Your task to perform on an android device: change the clock display to analog Image 0: 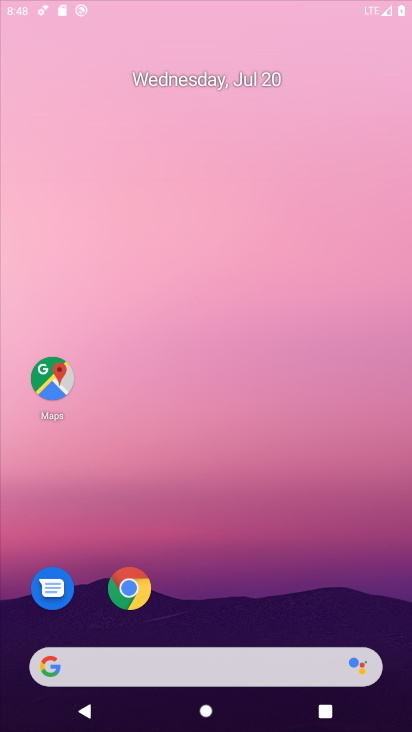
Step 0: press home button
Your task to perform on an android device: change the clock display to analog Image 1: 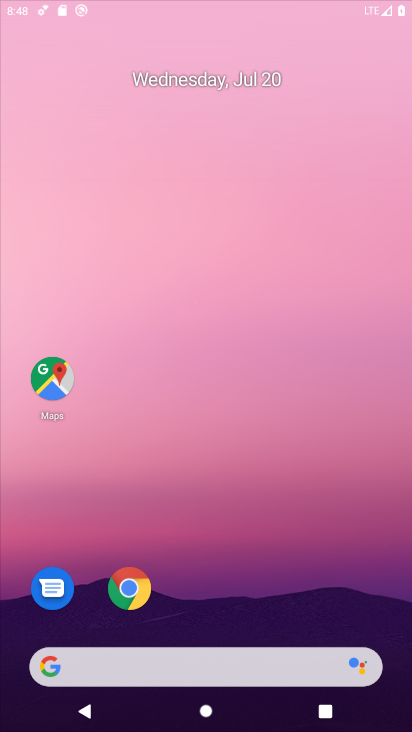
Step 1: click (242, 40)
Your task to perform on an android device: change the clock display to analog Image 2: 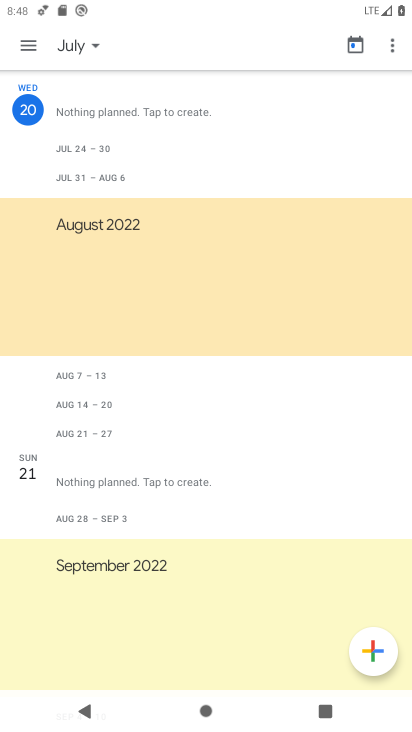
Step 2: press home button
Your task to perform on an android device: change the clock display to analog Image 3: 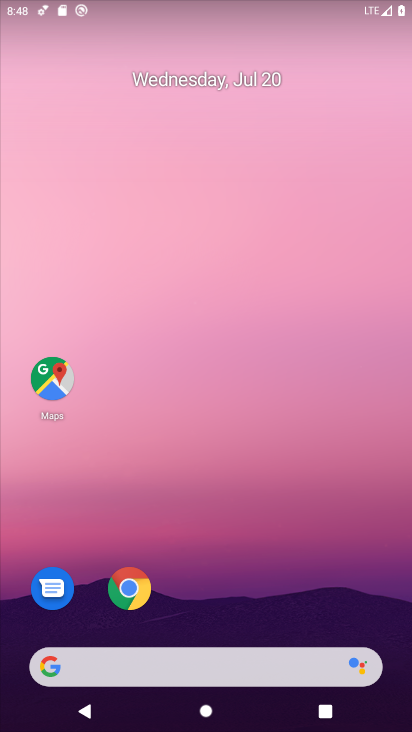
Step 3: drag from (219, 618) to (279, 32)
Your task to perform on an android device: change the clock display to analog Image 4: 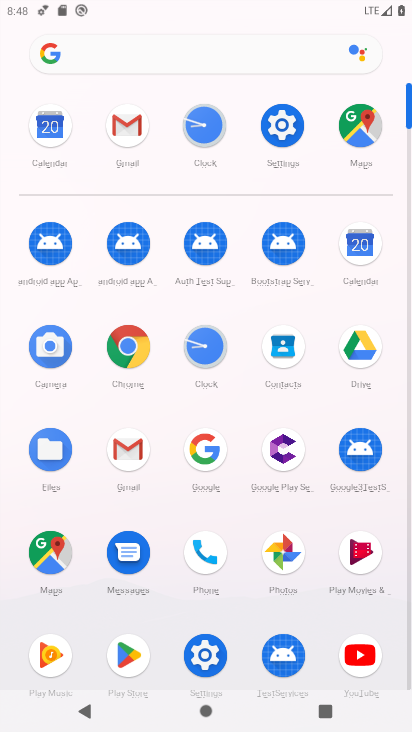
Step 4: click (201, 343)
Your task to perform on an android device: change the clock display to analog Image 5: 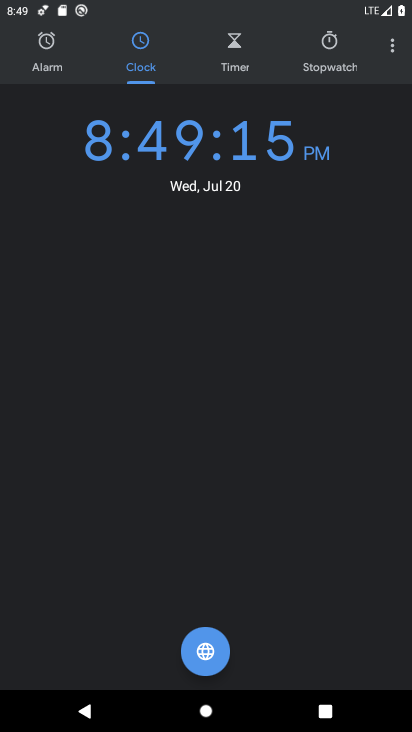
Step 5: click (390, 44)
Your task to perform on an android device: change the clock display to analog Image 6: 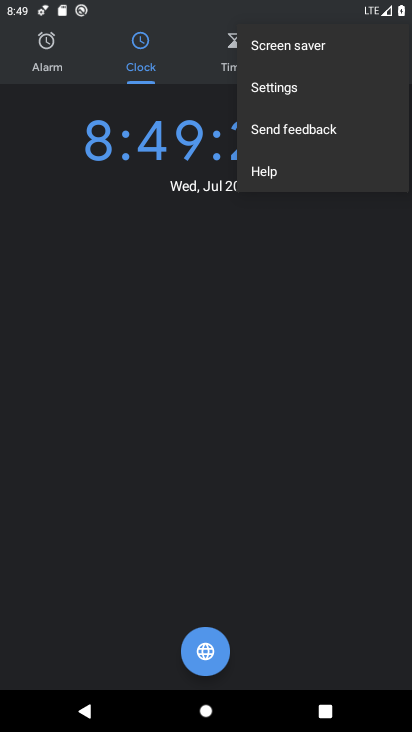
Step 6: click (300, 89)
Your task to perform on an android device: change the clock display to analog Image 7: 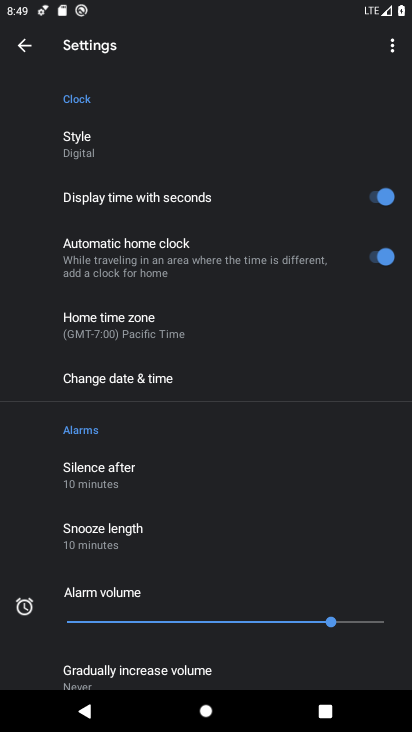
Step 7: click (120, 153)
Your task to perform on an android device: change the clock display to analog Image 8: 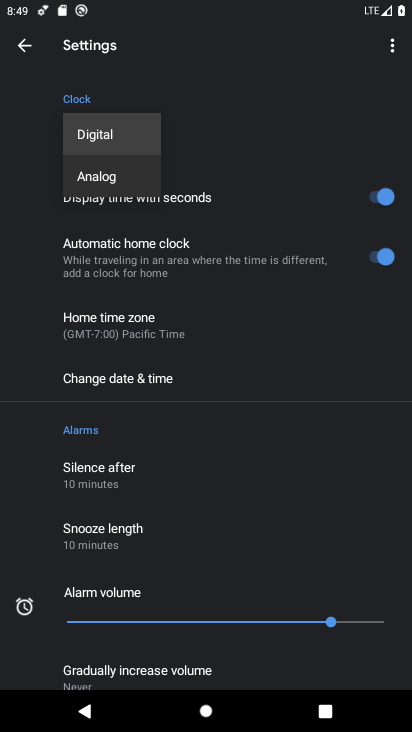
Step 8: click (121, 177)
Your task to perform on an android device: change the clock display to analog Image 9: 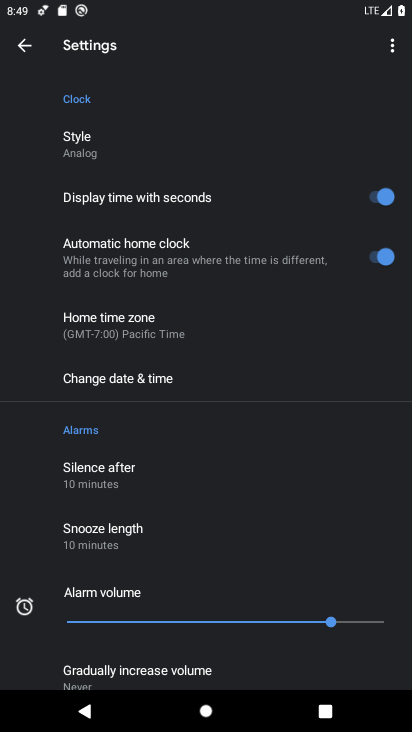
Step 9: task complete